Your task to perform on an android device: toggle javascript in the chrome app Image 0: 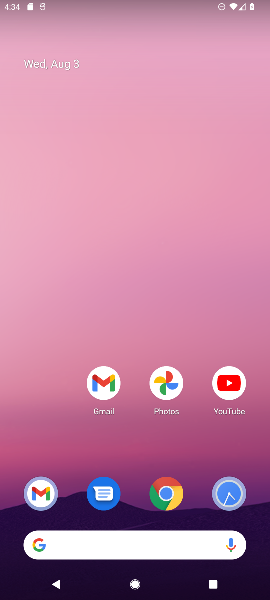
Step 0: drag from (58, 458) to (69, 107)
Your task to perform on an android device: toggle javascript in the chrome app Image 1: 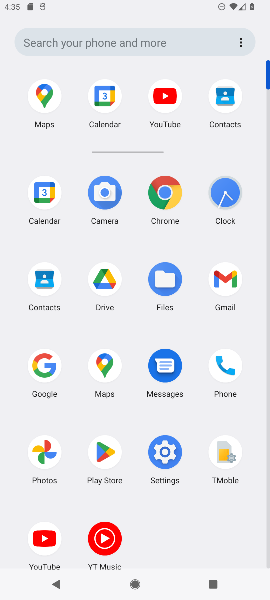
Step 1: click (175, 197)
Your task to perform on an android device: toggle javascript in the chrome app Image 2: 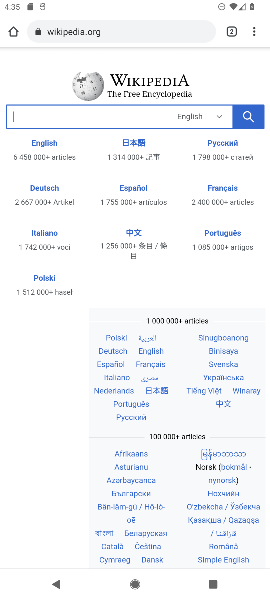
Step 2: click (251, 33)
Your task to perform on an android device: toggle javascript in the chrome app Image 3: 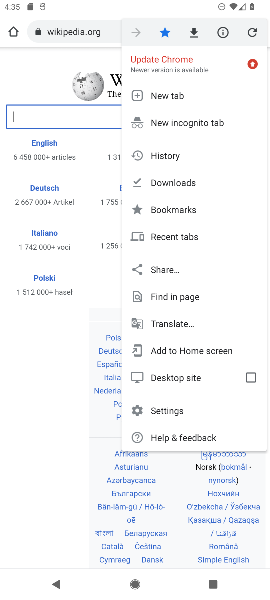
Step 3: click (194, 408)
Your task to perform on an android device: toggle javascript in the chrome app Image 4: 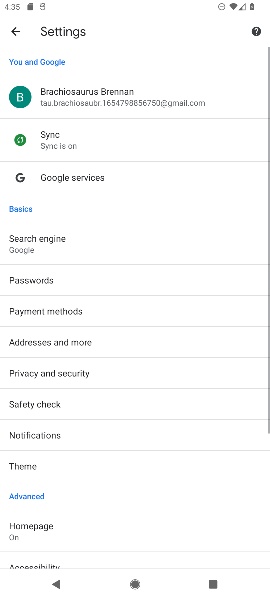
Step 4: drag from (192, 442) to (198, 336)
Your task to perform on an android device: toggle javascript in the chrome app Image 5: 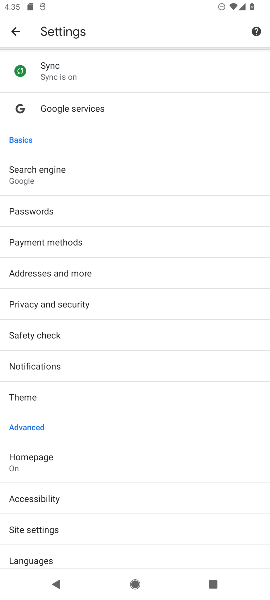
Step 5: drag from (203, 453) to (203, 345)
Your task to perform on an android device: toggle javascript in the chrome app Image 6: 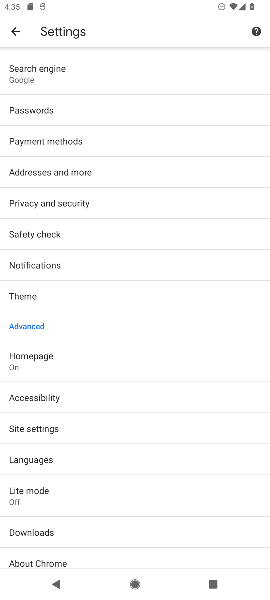
Step 6: drag from (188, 467) to (192, 310)
Your task to perform on an android device: toggle javascript in the chrome app Image 7: 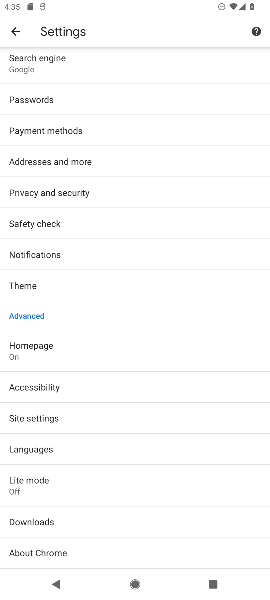
Step 7: click (140, 421)
Your task to perform on an android device: toggle javascript in the chrome app Image 8: 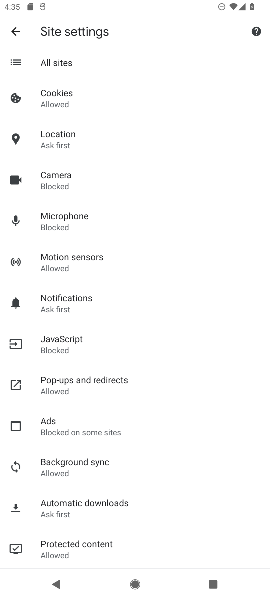
Step 8: drag from (166, 462) to (173, 401)
Your task to perform on an android device: toggle javascript in the chrome app Image 9: 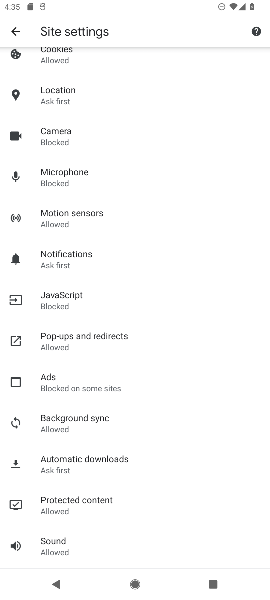
Step 9: click (82, 306)
Your task to perform on an android device: toggle javascript in the chrome app Image 10: 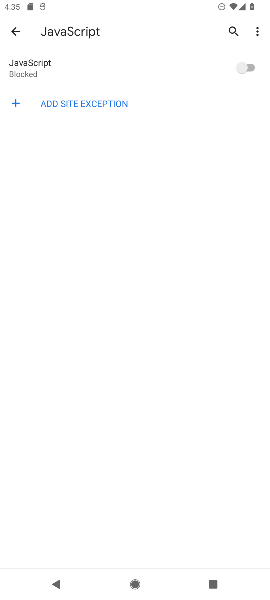
Step 10: click (244, 67)
Your task to perform on an android device: toggle javascript in the chrome app Image 11: 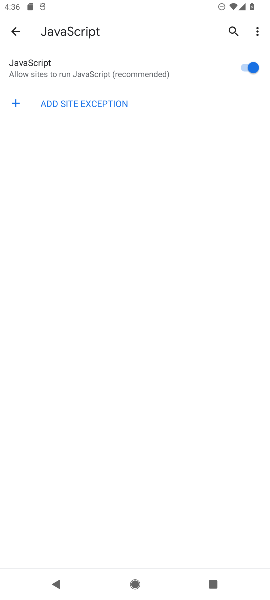
Step 11: task complete